Your task to perform on an android device: Do I have any events this weekend? Image 0: 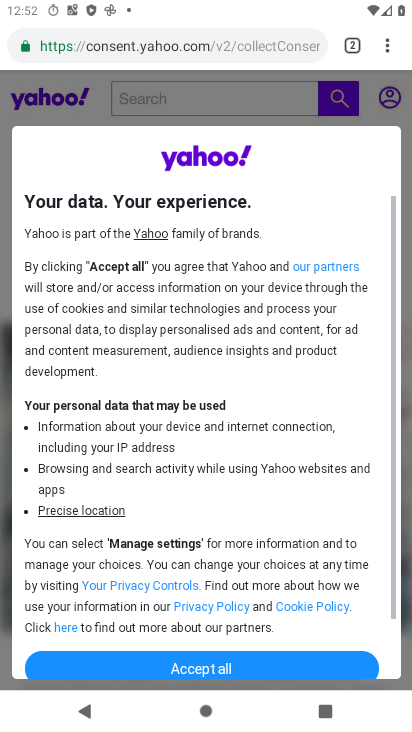
Step 0: press home button
Your task to perform on an android device: Do I have any events this weekend? Image 1: 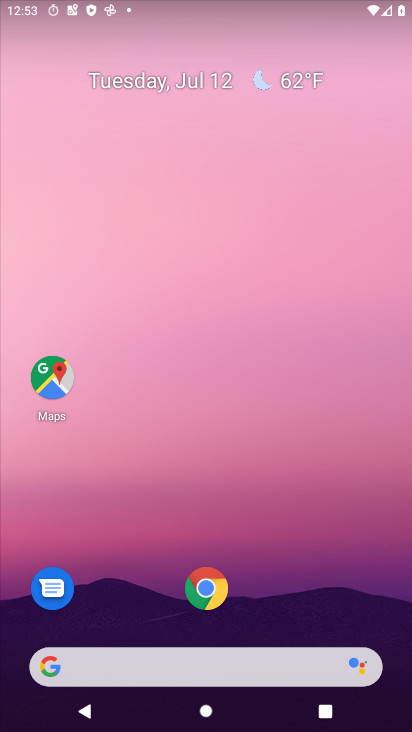
Step 1: drag from (235, 627) to (268, 130)
Your task to perform on an android device: Do I have any events this weekend? Image 2: 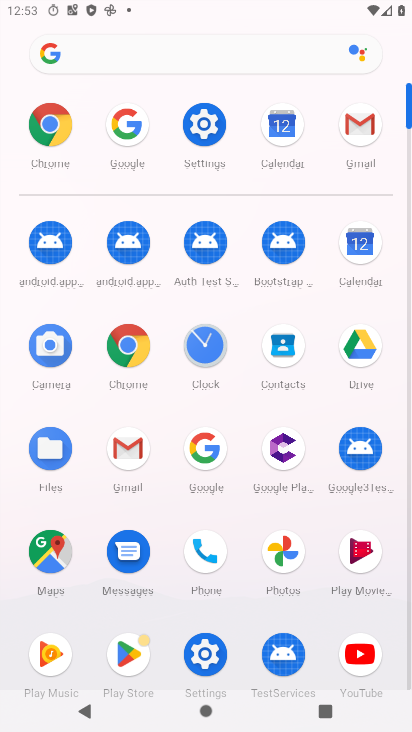
Step 2: click (205, 127)
Your task to perform on an android device: Do I have any events this weekend? Image 3: 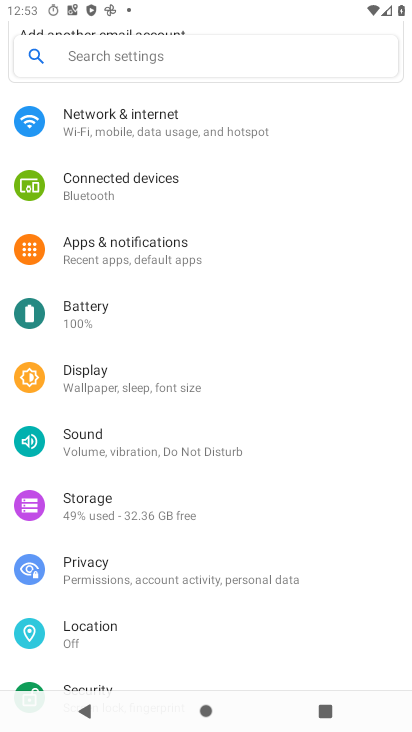
Step 3: press home button
Your task to perform on an android device: Do I have any events this weekend? Image 4: 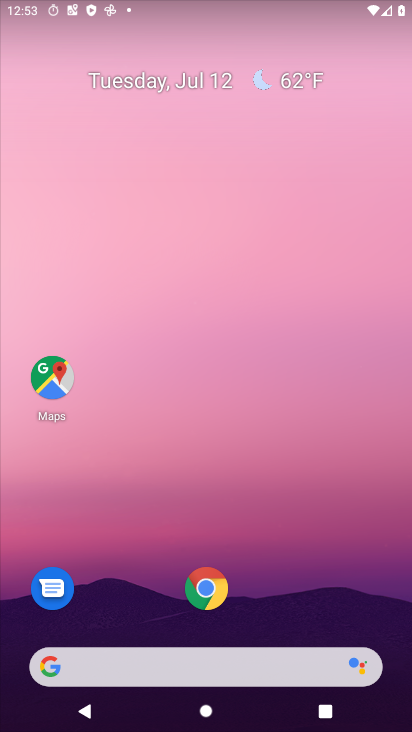
Step 4: drag from (260, 229) to (233, 77)
Your task to perform on an android device: Do I have any events this weekend? Image 5: 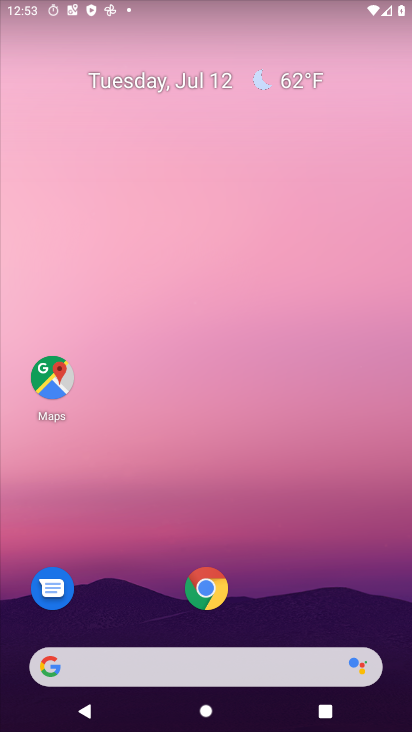
Step 5: drag from (201, 604) to (242, 31)
Your task to perform on an android device: Do I have any events this weekend? Image 6: 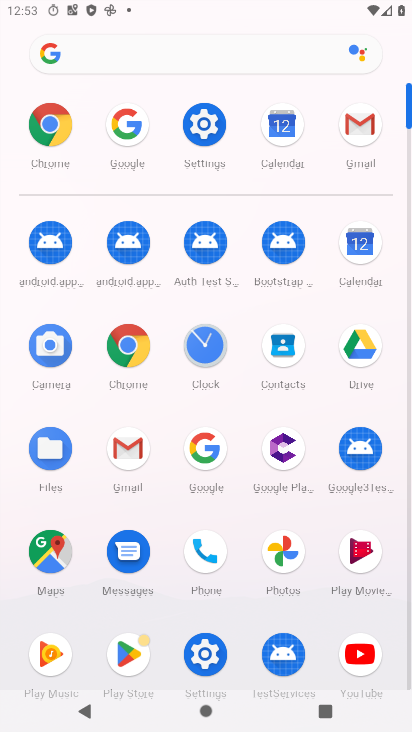
Step 6: click (285, 132)
Your task to perform on an android device: Do I have any events this weekend? Image 7: 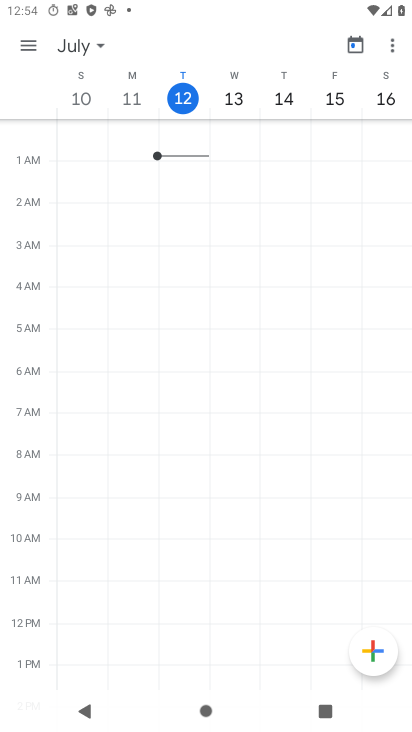
Step 7: task complete